Your task to perform on an android device: clear all cookies in the chrome app Image 0: 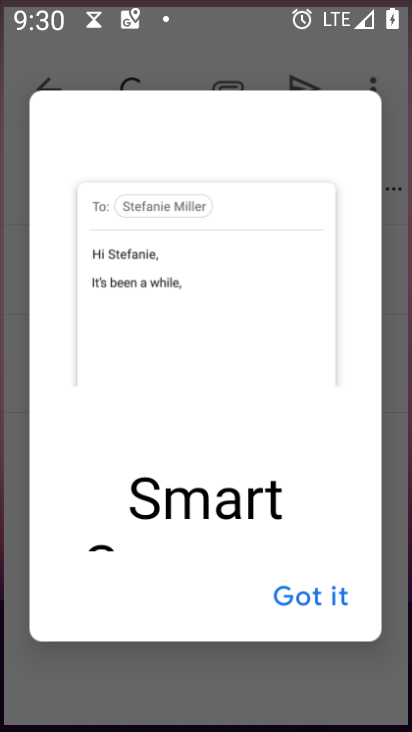
Step 0: press home button
Your task to perform on an android device: clear all cookies in the chrome app Image 1: 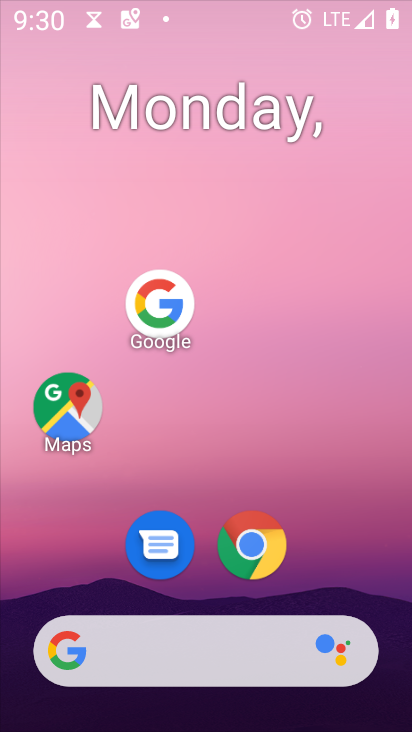
Step 1: press home button
Your task to perform on an android device: clear all cookies in the chrome app Image 2: 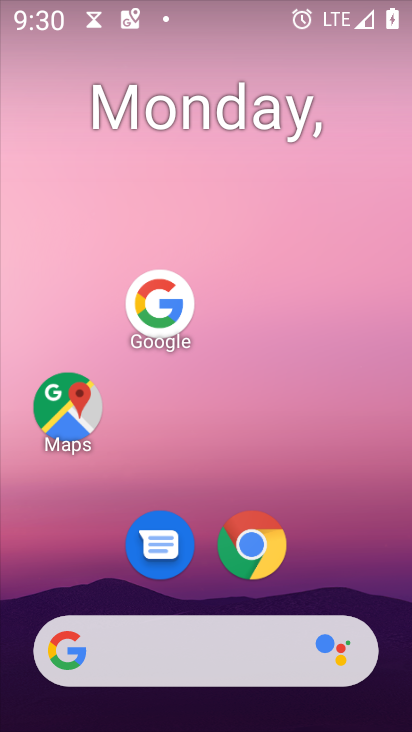
Step 2: click (263, 559)
Your task to perform on an android device: clear all cookies in the chrome app Image 3: 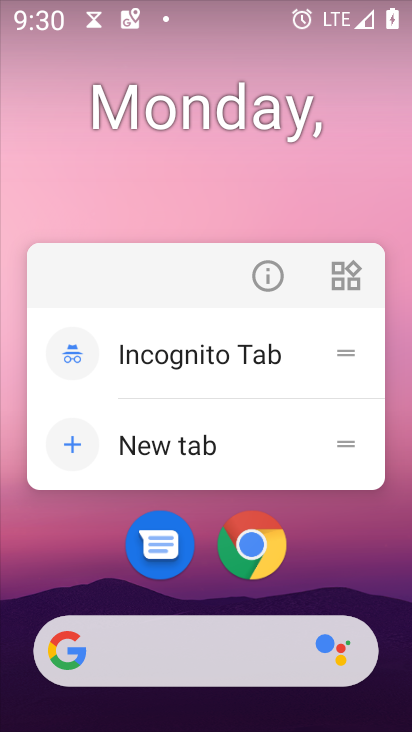
Step 3: click (233, 537)
Your task to perform on an android device: clear all cookies in the chrome app Image 4: 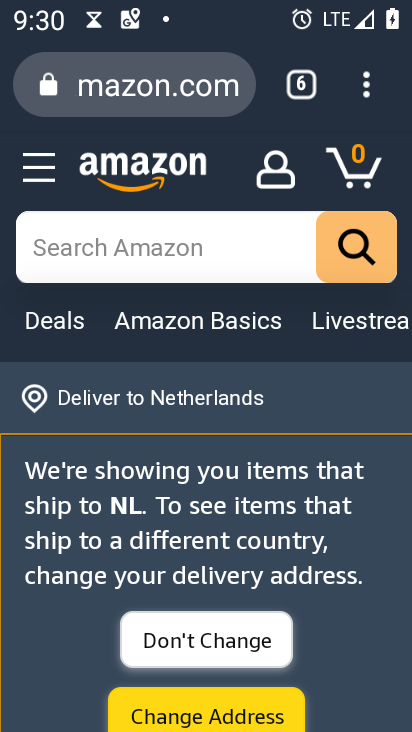
Step 4: drag from (371, 87) to (230, 605)
Your task to perform on an android device: clear all cookies in the chrome app Image 5: 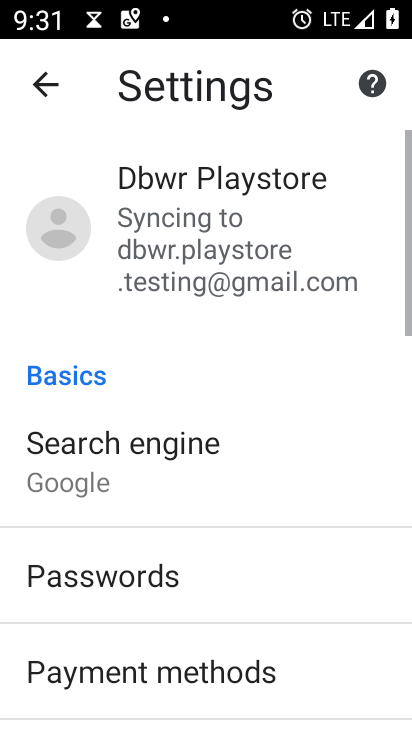
Step 5: drag from (231, 601) to (346, 142)
Your task to perform on an android device: clear all cookies in the chrome app Image 6: 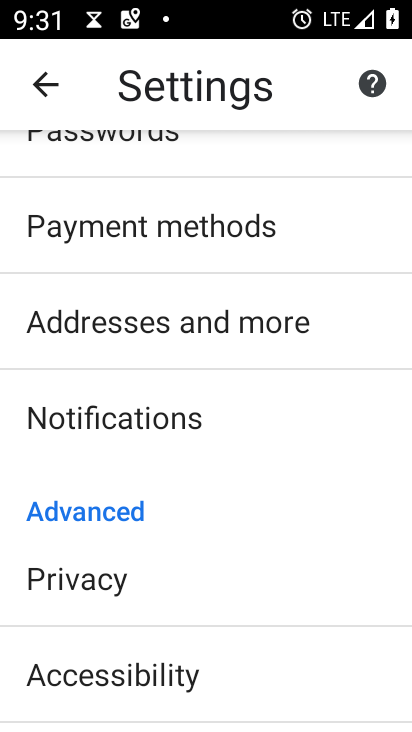
Step 6: click (108, 584)
Your task to perform on an android device: clear all cookies in the chrome app Image 7: 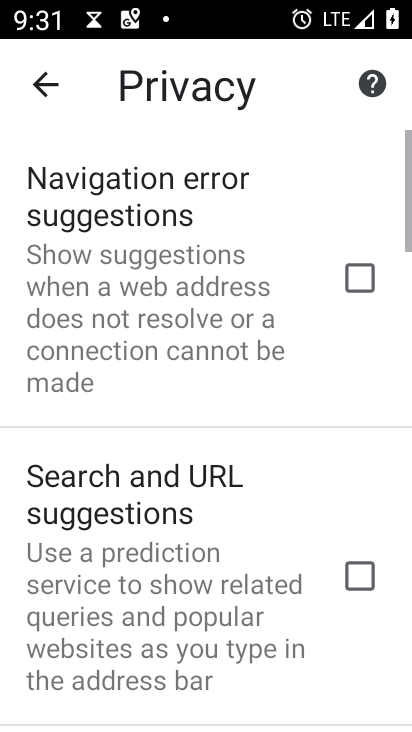
Step 7: drag from (238, 676) to (287, 133)
Your task to perform on an android device: clear all cookies in the chrome app Image 8: 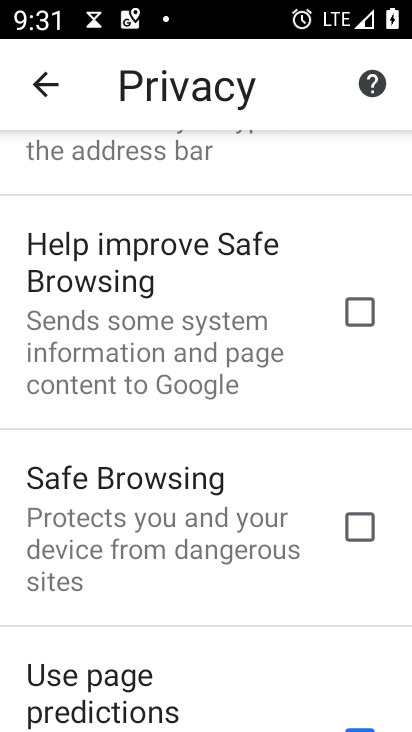
Step 8: drag from (227, 637) to (277, 173)
Your task to perform on an android device: clear all cookies in the chrome app Image 9: 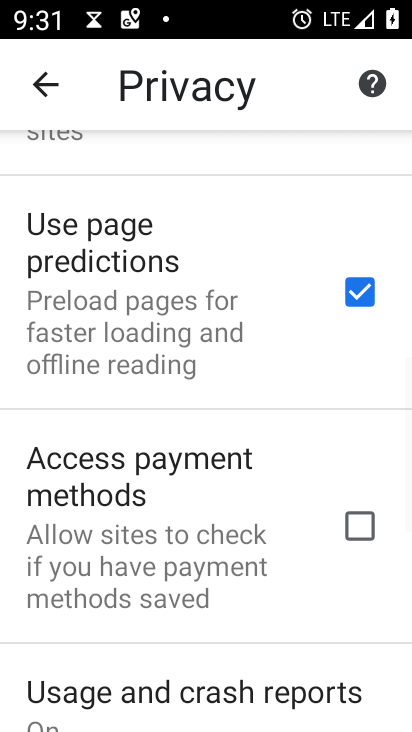
Step 9: drag from (179, 646) to (290, 190)
Your task to perform on an android device: clear all cookies in the chrome app Image 10: 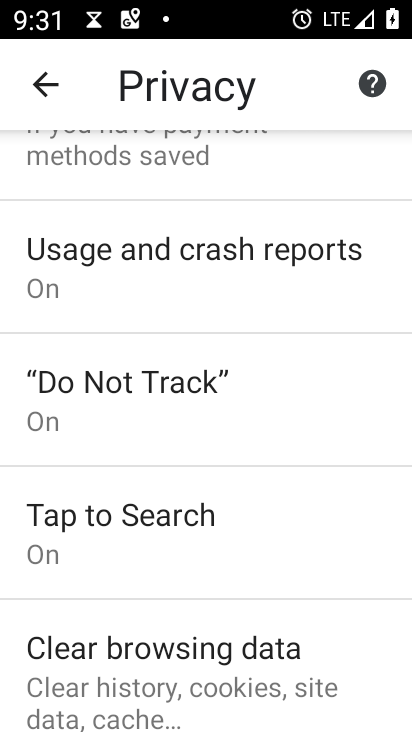
Step 10: drag from (205, 655) to (303, 286)
Your task to perform on an android device: clear all cookies in the chrome app Image 11: 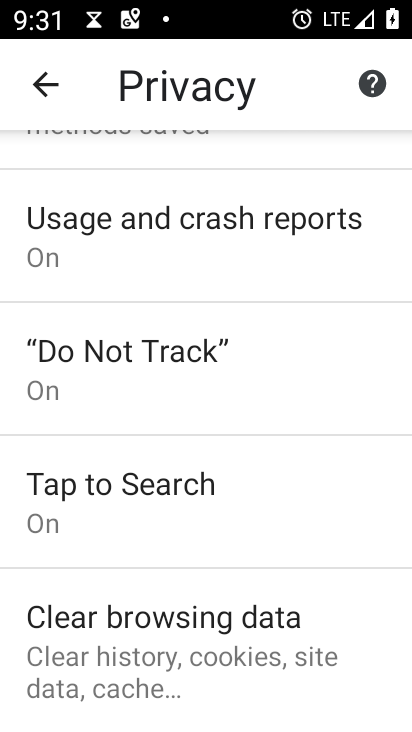
Step 11: click (194, 661)
Your task to perform on an android device: clear all cookies in the chrome app Image 12: 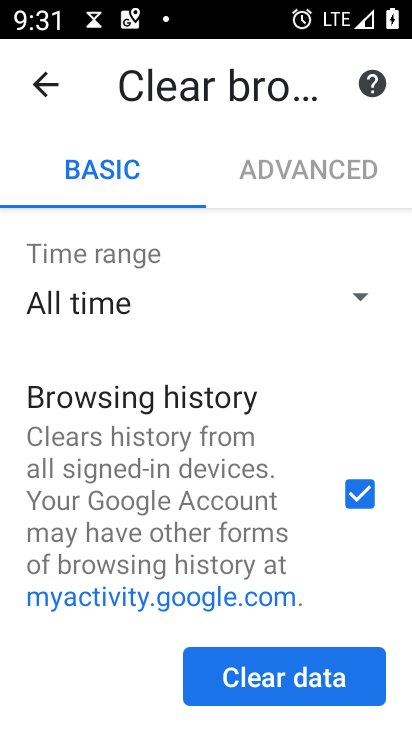
Step 12: click (347, 480)
Your task to perform on an android device: clear all cookies in the chrome app Image 13: 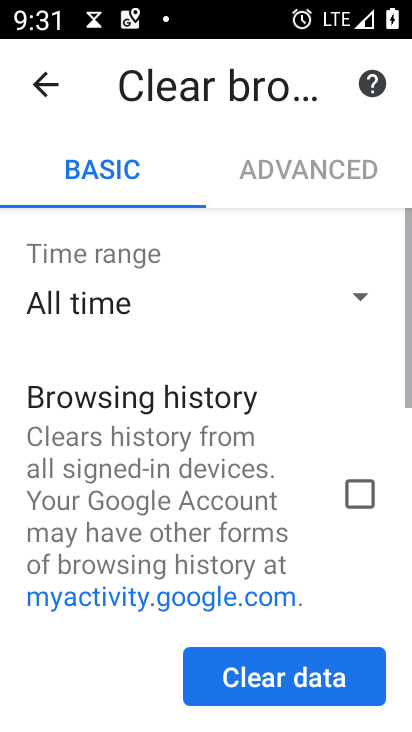
Step 13: drag from (168, 559) to (229, 200)
Your task to perform on an android device: clear all cookies in the chrome app Image 14: 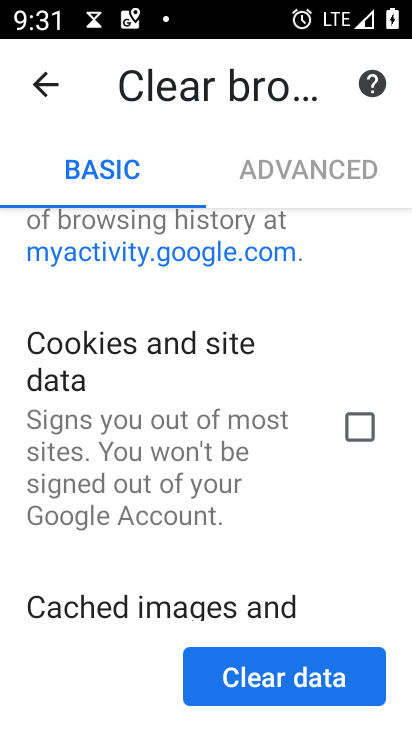
Step 14: click (352, 429)
Your task to perform on an android device: clear all cookies in the chrome app Image 15: 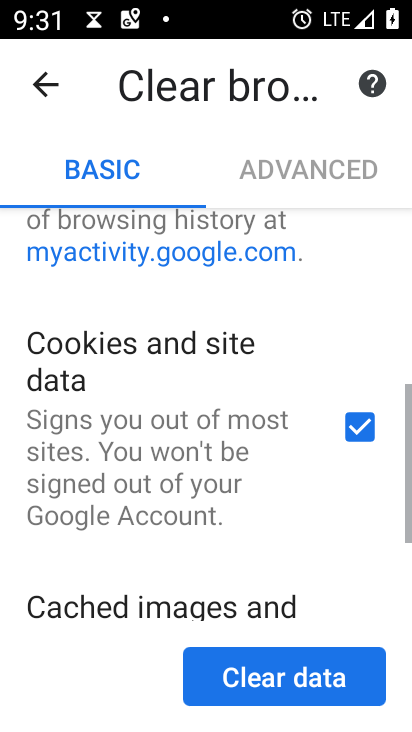
Step 15: drag from (139, 555) to (218, 253)
Your task to perform on an android device: clear all cookies in the chrome app Image 16: 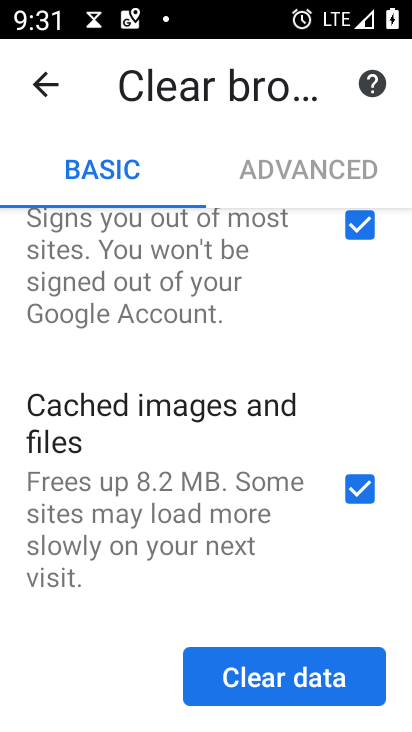
Step 16: click (350, 494)
Your task to perform on an android device: clear all cookies in the chrome app Image 17: 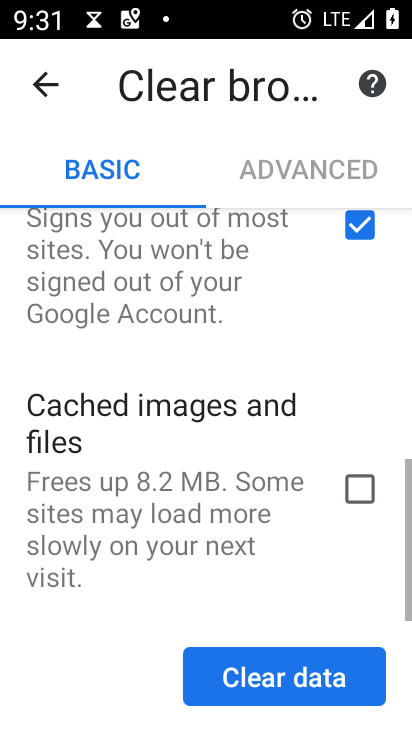
Step 17: click (324, 684)
Your task to perform on an android device: clear all cookies in the chrome app Image 18: 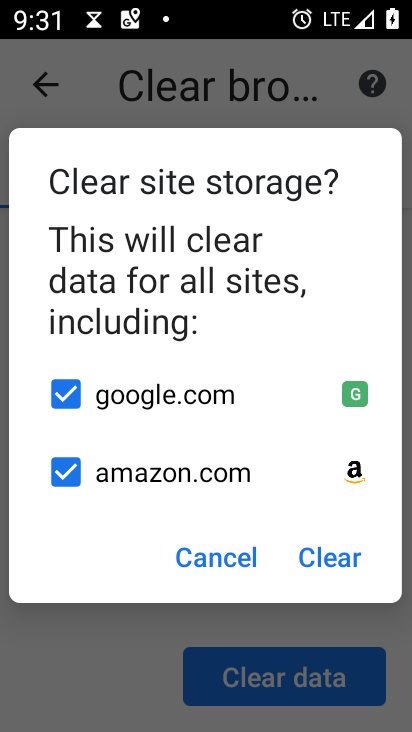
Step 18: click (330, 554)
Your task to perform on an android device: clear all cookies in the chrome app Image 19: 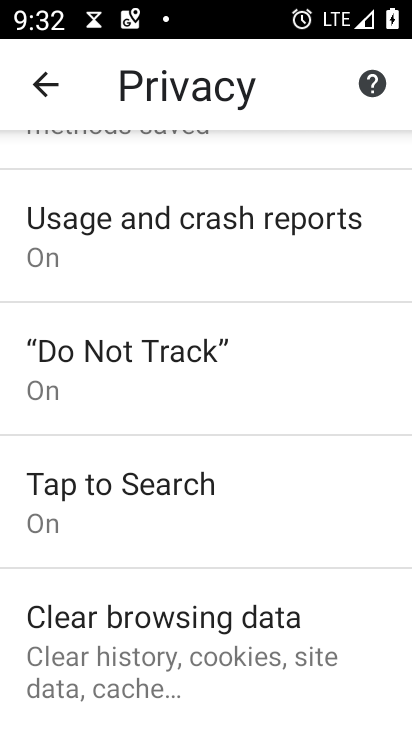
Step 19: task complete